Your task to perform on an android device: see sites visited before in the chrome app Image 0: 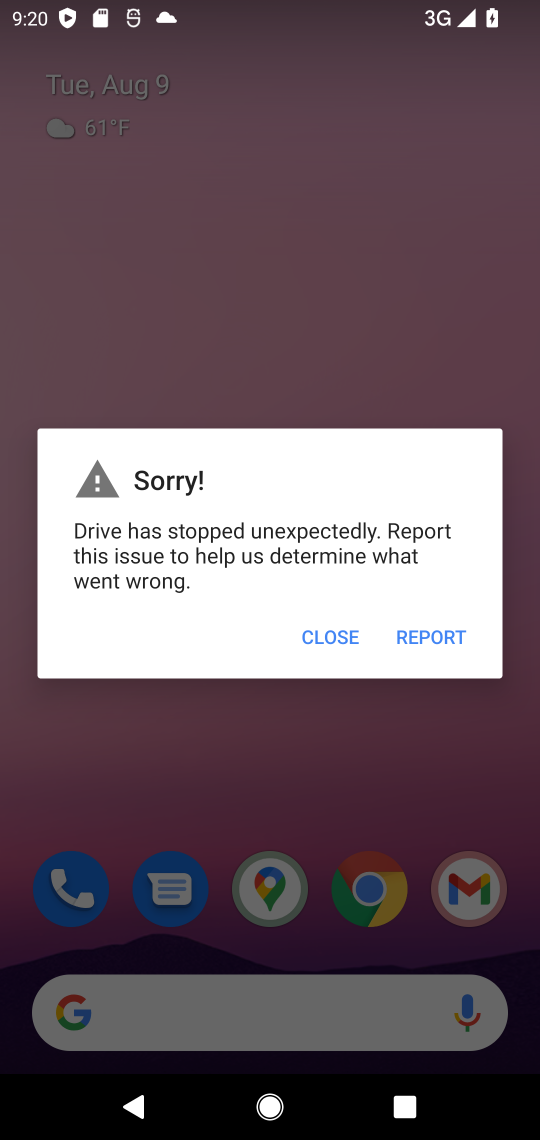
Step 0: press home button
Your task to perform on an android device: see sites visited before in the chrome app Image 1: 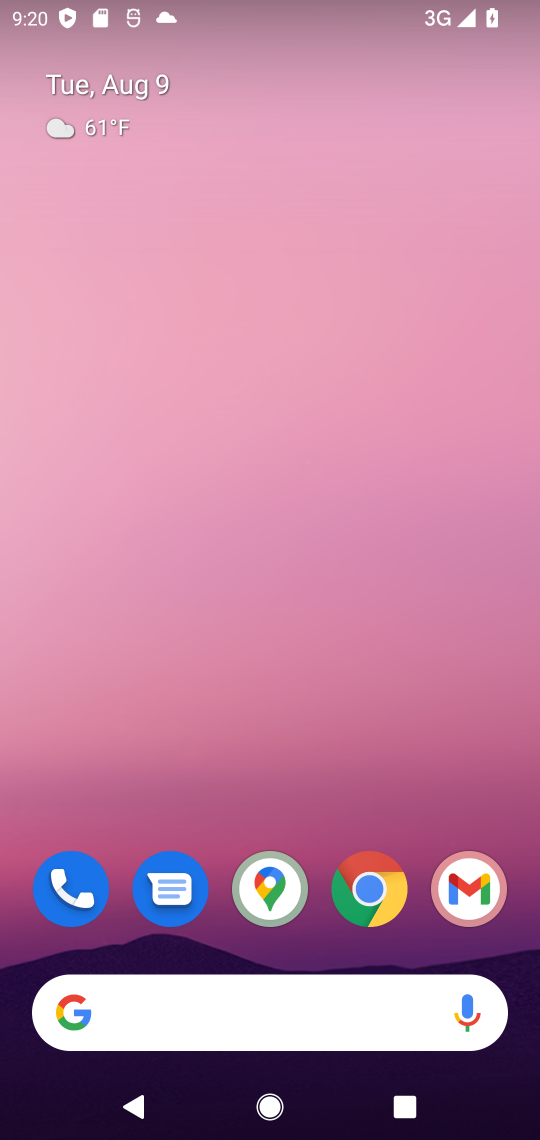
Step 1: click (329, 645)
Your task to perform on an android device: see sites visited before in the chrome app Image 2: 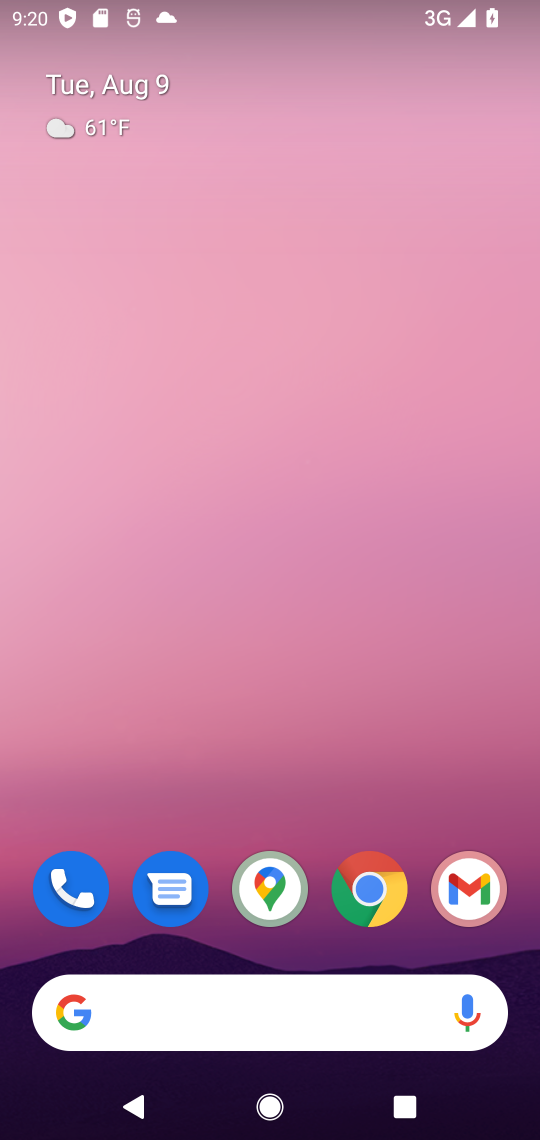
Step 2: drag from (260, 901) to (441, 75)
Your task to perform on an android device: see sites visited before in the chrome app Image 3: 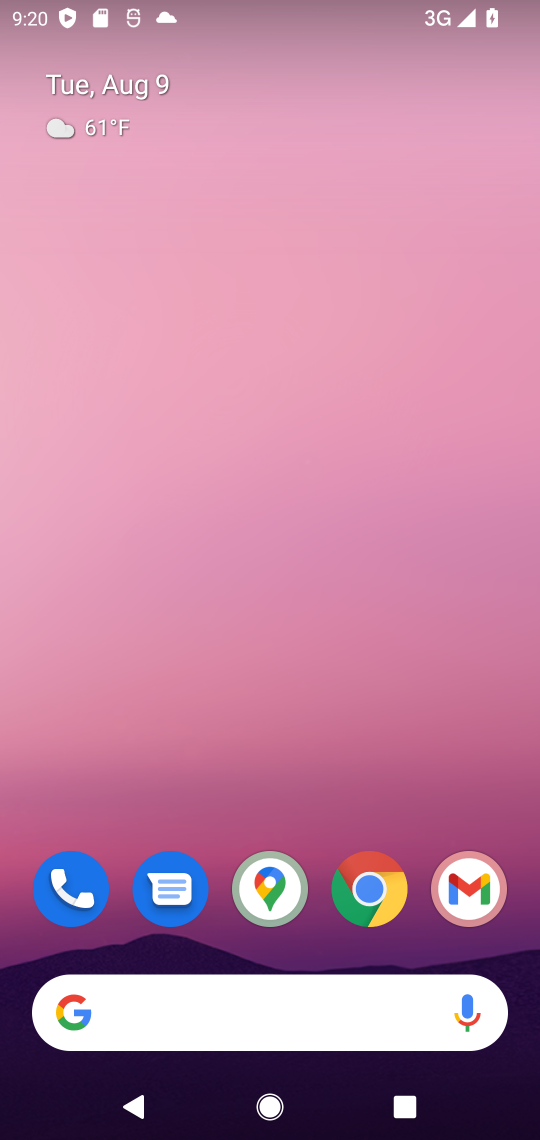
Step 3: drag from (357, 616) to (485, 11)
Your task to perform on an android device: see sites visited before in the chrome app Image 4: 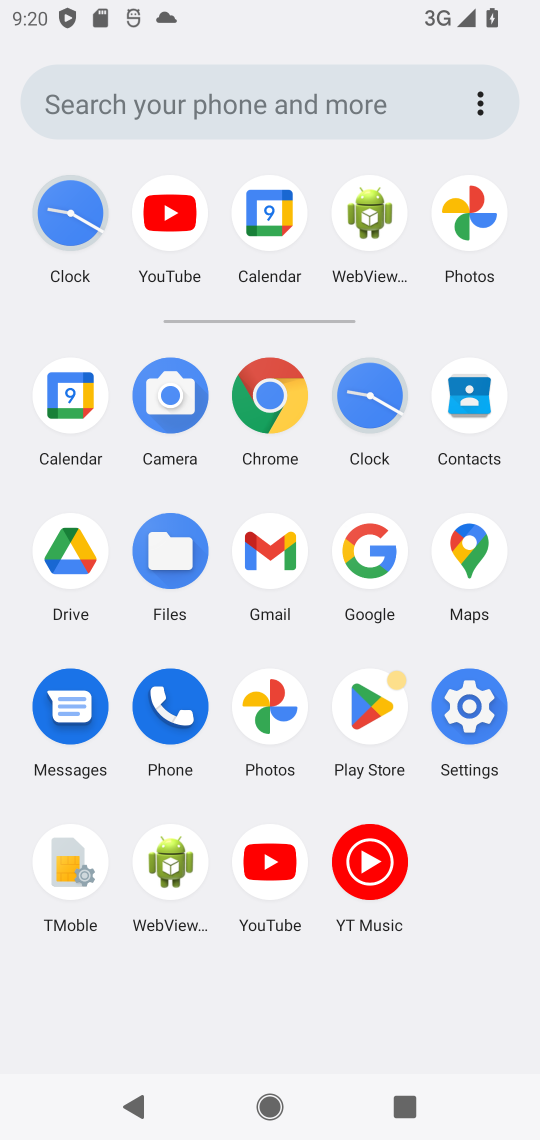
Step 4: click (279, 401)
Your task to perform on an android device: see sites visited before in the chrome app Image 5: 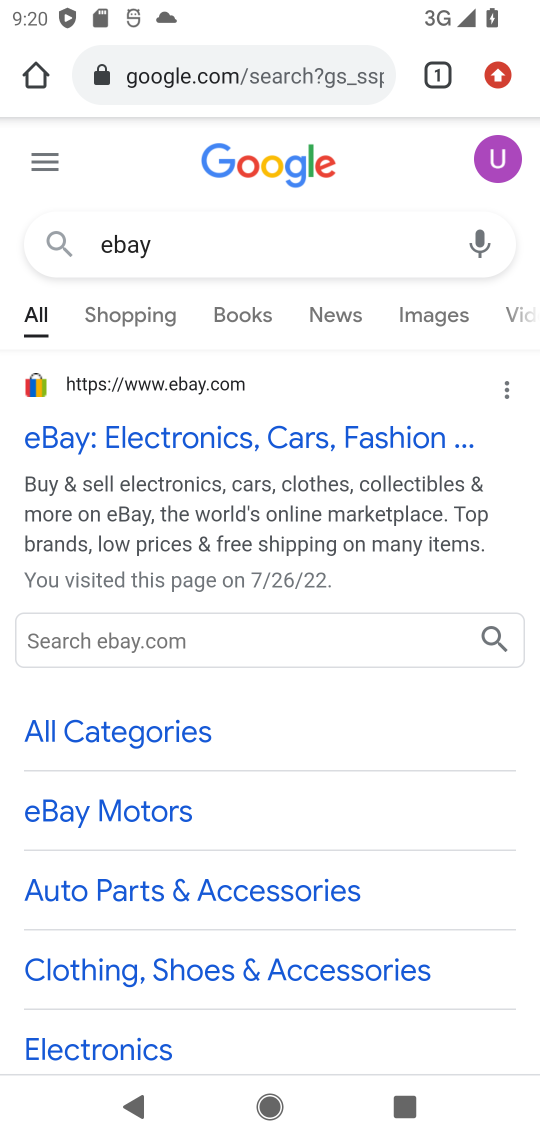
Step 5: task complete